Your task to perform on an android device: Show me popular games on the Play Store Image 0: 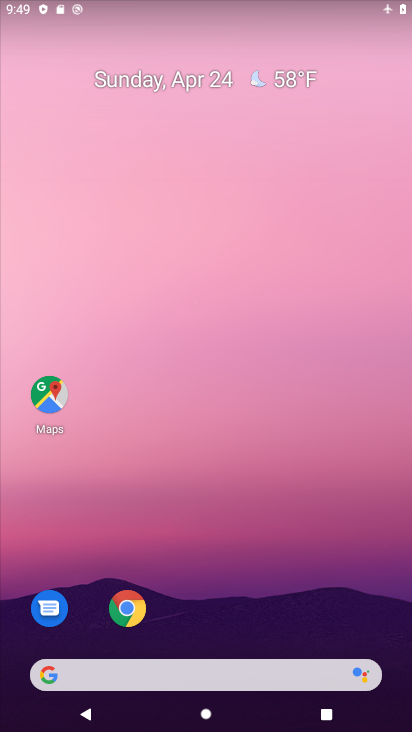
Step 0: drag from (313, 531) to (359, 8)
Your task to perform on an android device: Show me popular games on the Play Store Image 1: 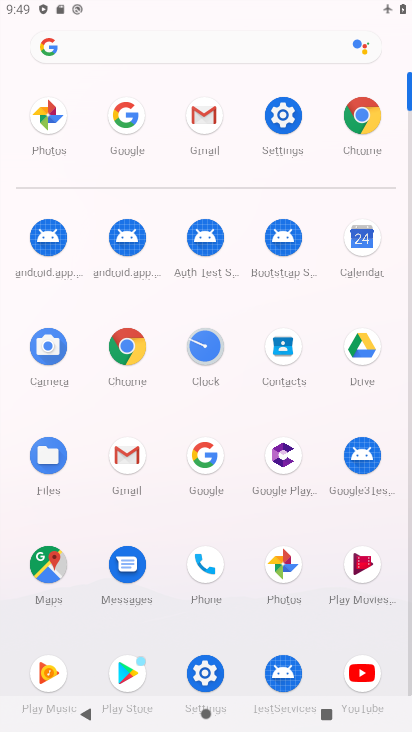
Step 1: drag from (398, 554) to (374, 125)
Your task to perform on an android device: Show me popular games on the Play Store Image 2: 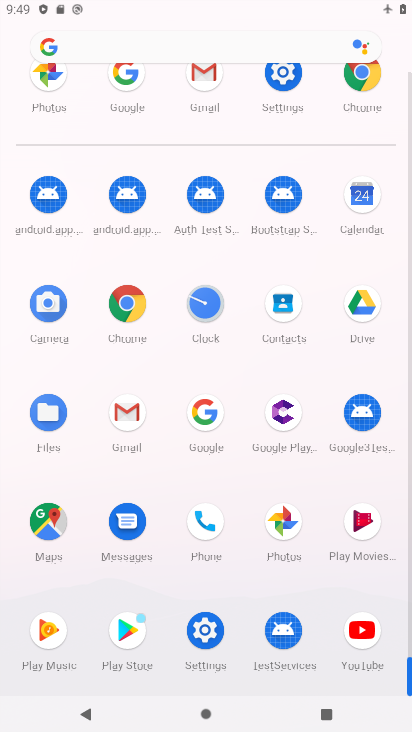
Step 2: click (130, 632)
Your task to perform on an android device: Show me popular games on the Play Store Image 3: 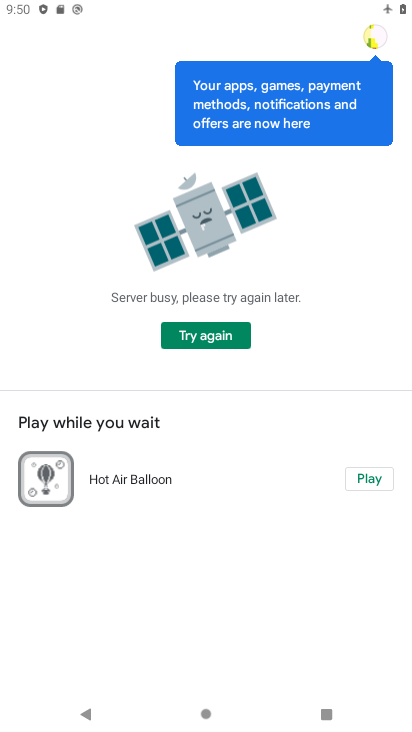
Step 3: click (227, 335)
Your task to perform on an android device: Show me popular games on the Play Store Image 4: 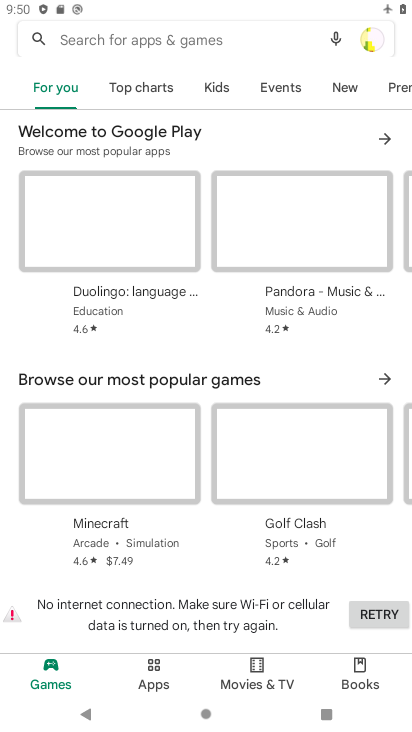
Step 4: task complete